Your task to perform on an android device: find snoozed emails in the gmail app Image 0: 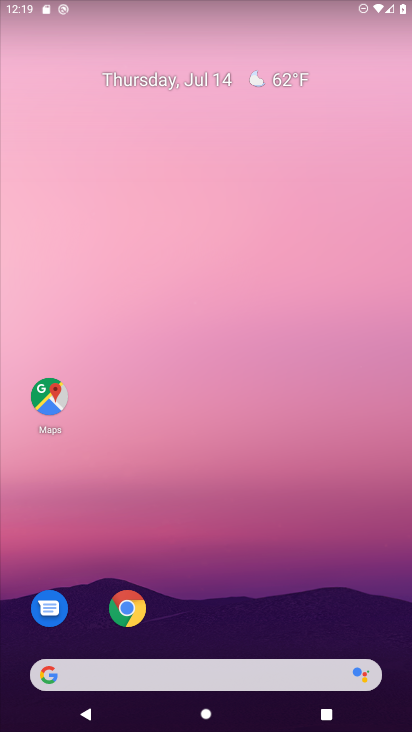
Step 0: drag from (249, 731) to (226, 108)
Your task to perform on an android device: find snoozed emails in the gmail app Image 1: 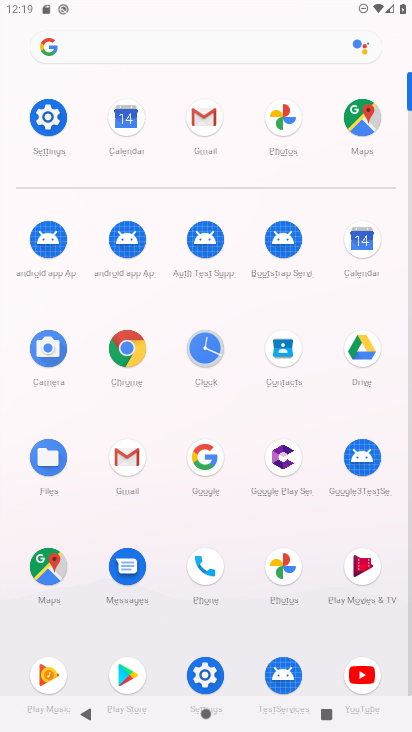
Step 1: click (126, 460)
Your task to perform on an android device: find snoozed emails in the gmail app Image 2: 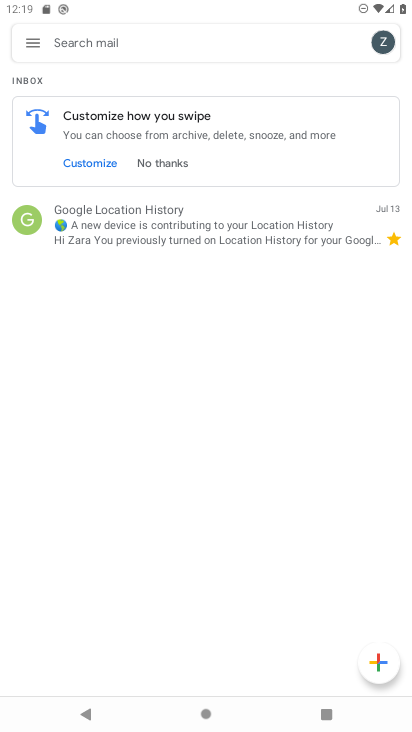
Step 2: click (30, 46)
Your task to perform on an android device: find snoozed emails in the gmail app Image 3: 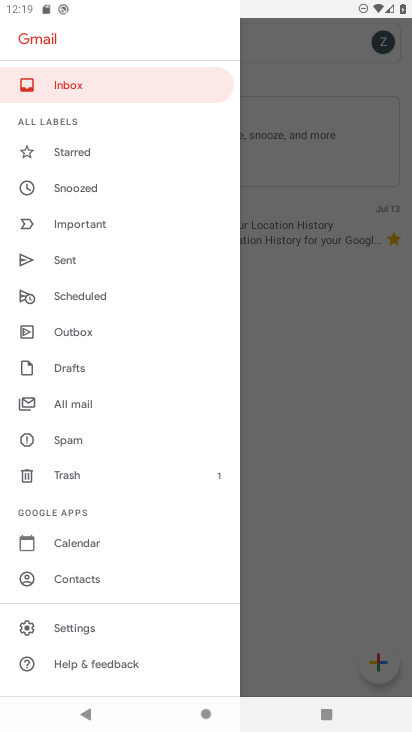
Step 3: click (65, 186)
Your task to perform on an android device: find snoozed emails in the gmail app Image 4: 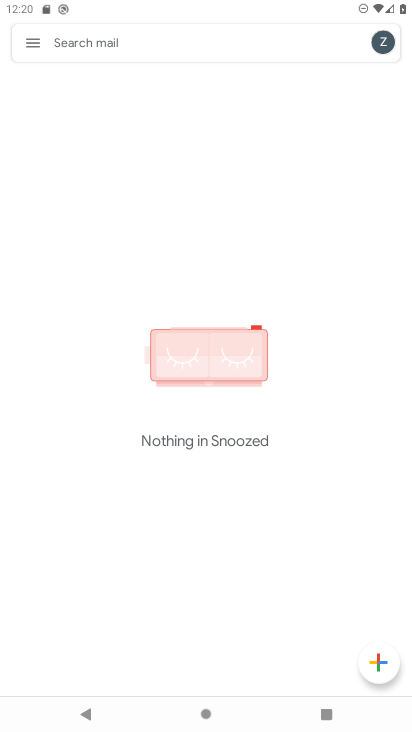
Step 4: task complete